Your task to perform on an android device: Add duracell triple a to the cart on walmart Image 0: 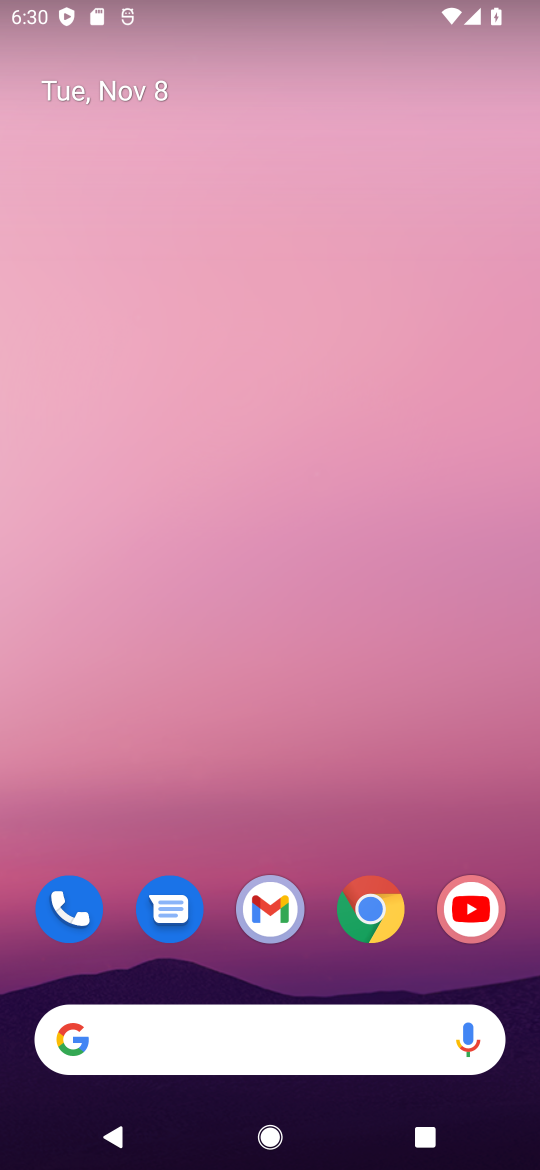
Step 0: click (385, 903)
Your task to perform on an android device: Add duracell triple a to the cart on walmart Image 1: 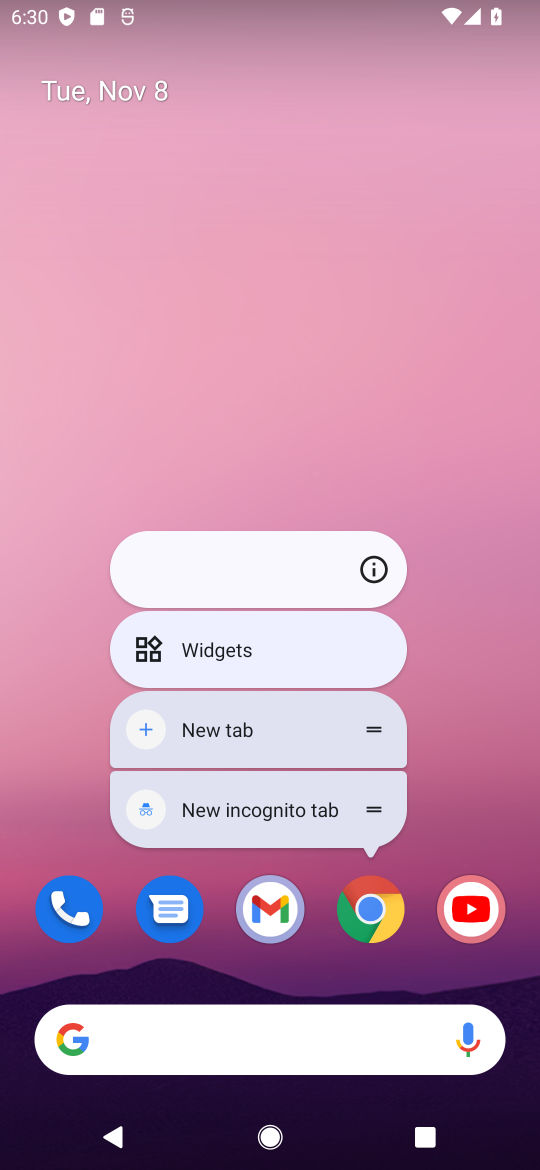
Step 1: click (365, 909)
Your task to perform on an android device: Add duracell triple a to the cart on walmart Image 2: 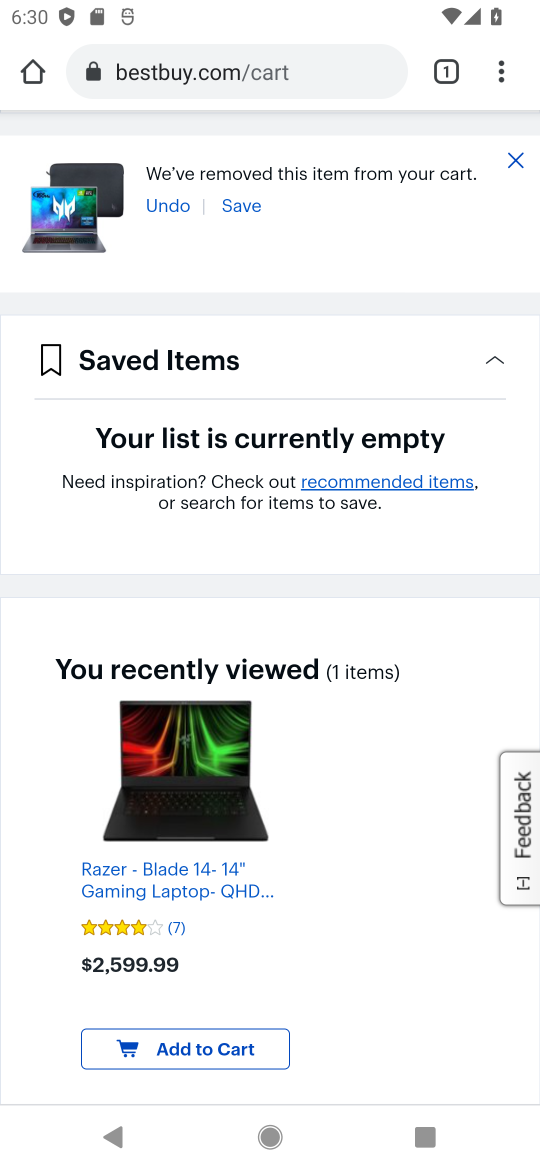
Step 2: click (257, 63)
Your task to perform on an android device: Add duracell triple a to the cart on walmart Image 3: 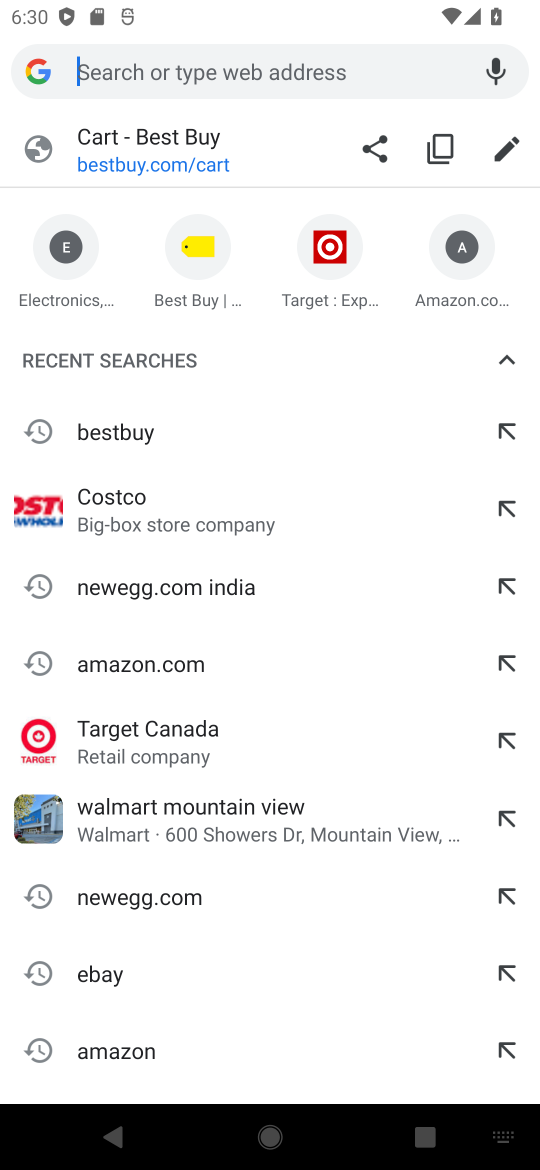
Step 3: drag from (408, 302) to (1, 647)
Your task to perform on an android device: Add duracell triple a to the cart on walmart Image 4: 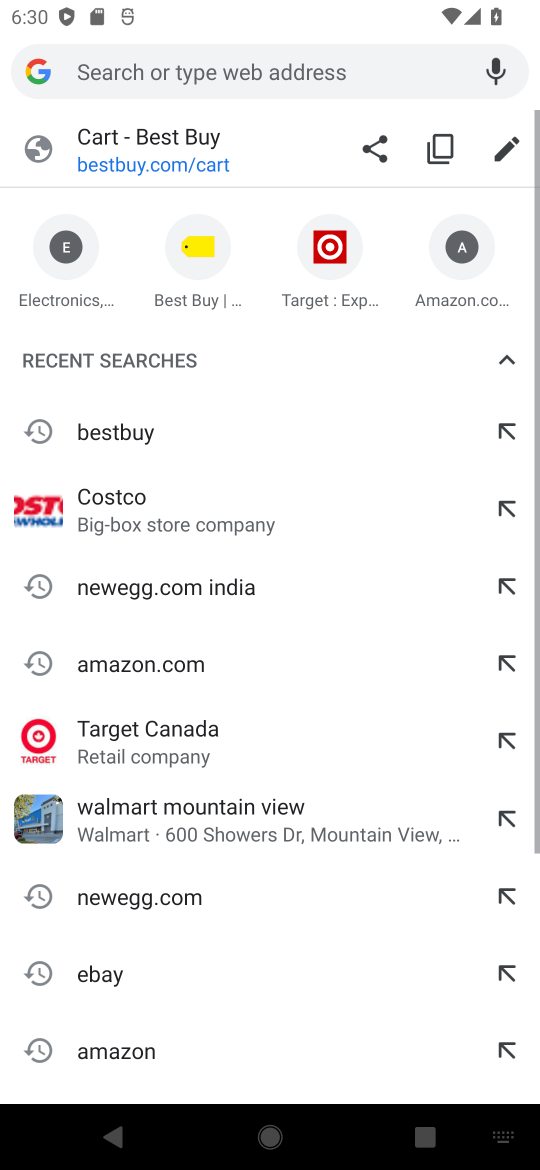
Step 4: drag from (403, 258) to (65, 258)
Your task to perform on an android device: Add duracell triple a to the cart on walmart Image 5: 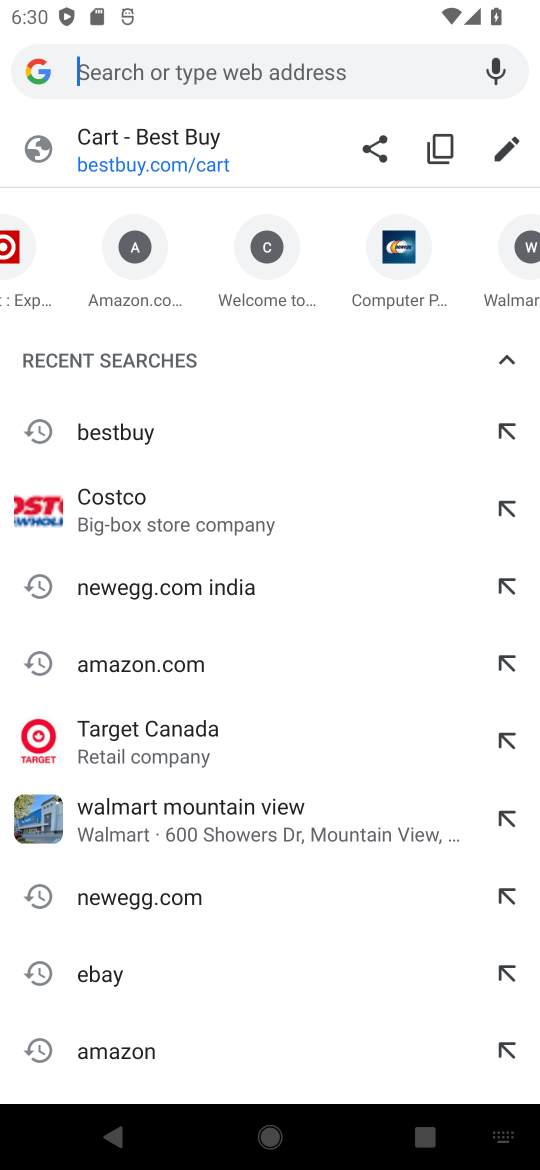
Step 5: drag from (450, 263) to (151, 274)
Your task to perform on an android device: Add duracell triple a to the cart on walmart Image 6: 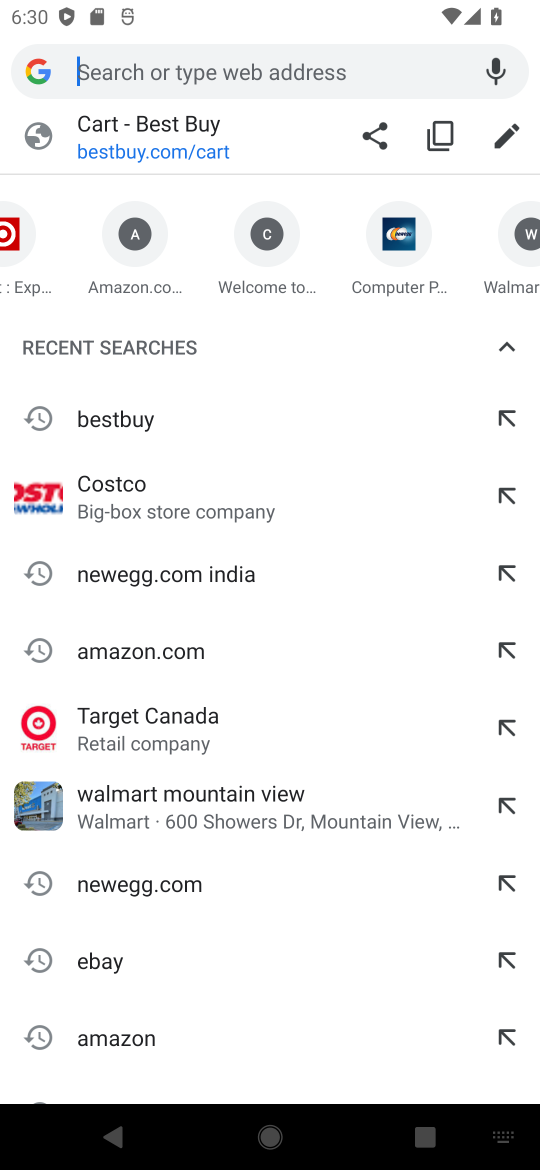
Step 6: click (512, 282)
Your task to perform on an android device: Add duracell triple a to the cart on walmart Image 7: 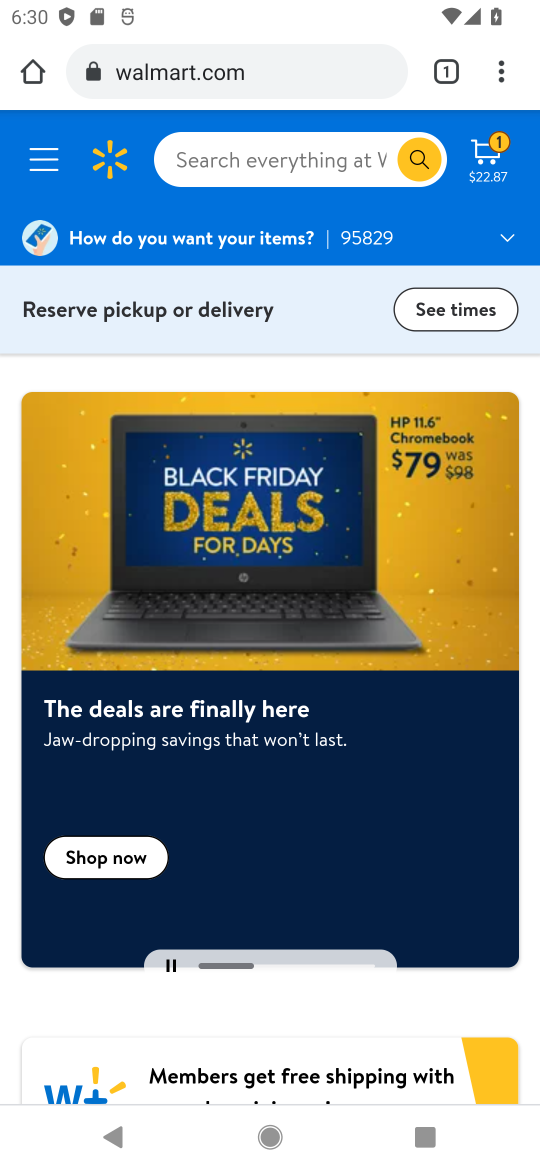
Step 7: click (336, 148)
Your task to perform on an android device: Add duracell triple a to the cart on walmart Image 8: 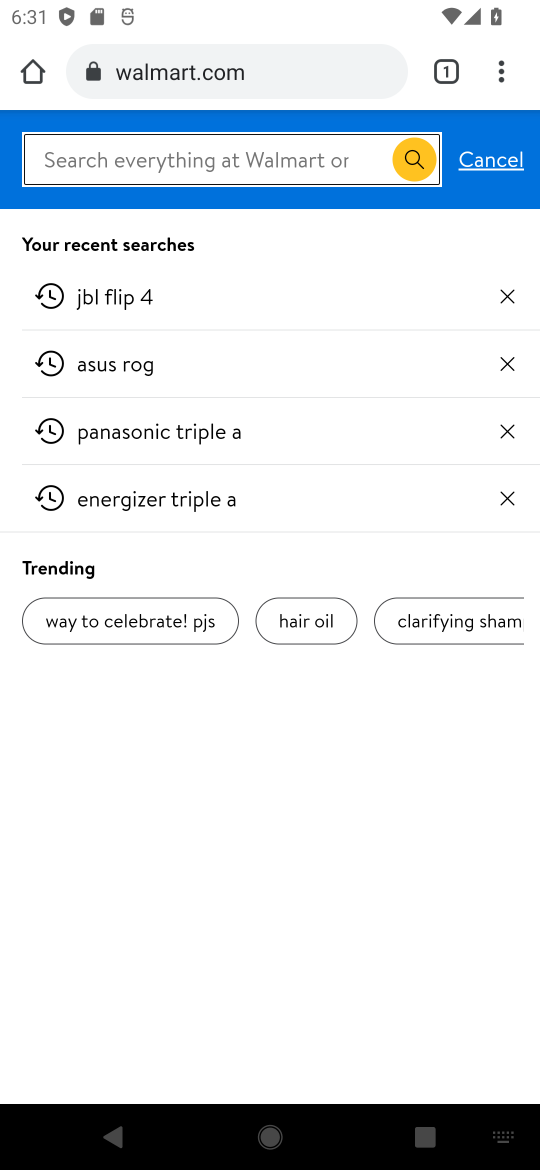
Step 8: type "duracell triple a"
Your task to perform on an android device: Add duracell triple a to the cart on walmart Image 9: 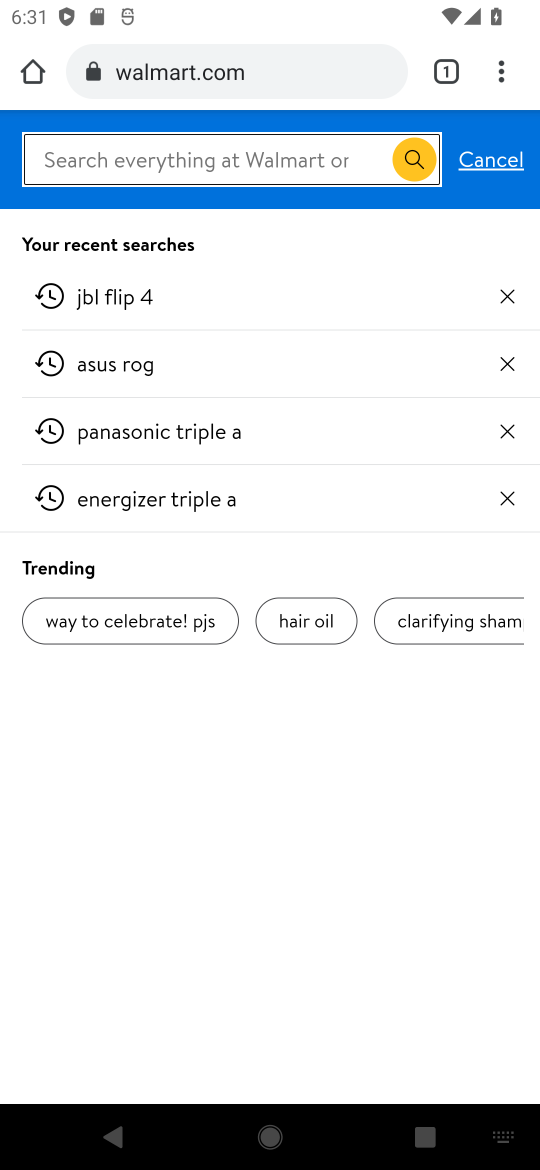
Step 9: press enter
Your task to perform on an android device: Add duracell triple a to the cart on walmart Image 10: 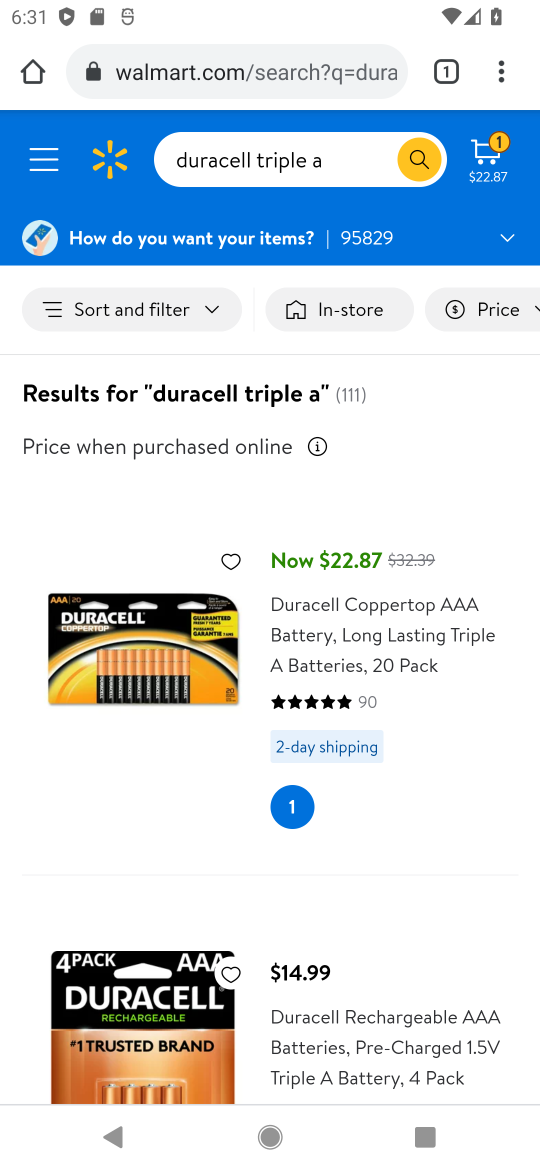
Step 10: click (389, 629)
Your task to perform on an android device: Add duracell triple a to the cart on walmart Image 11: 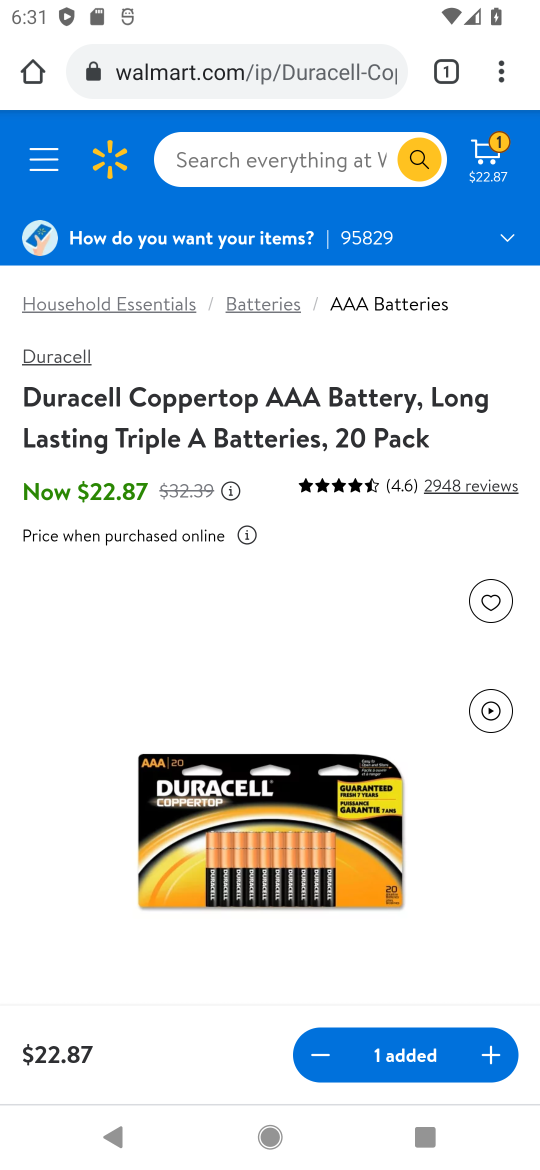
Step 11: click (496, 136)
Your task to perform on an android device: Add duracell triple a to the cart on walmart Image 12: 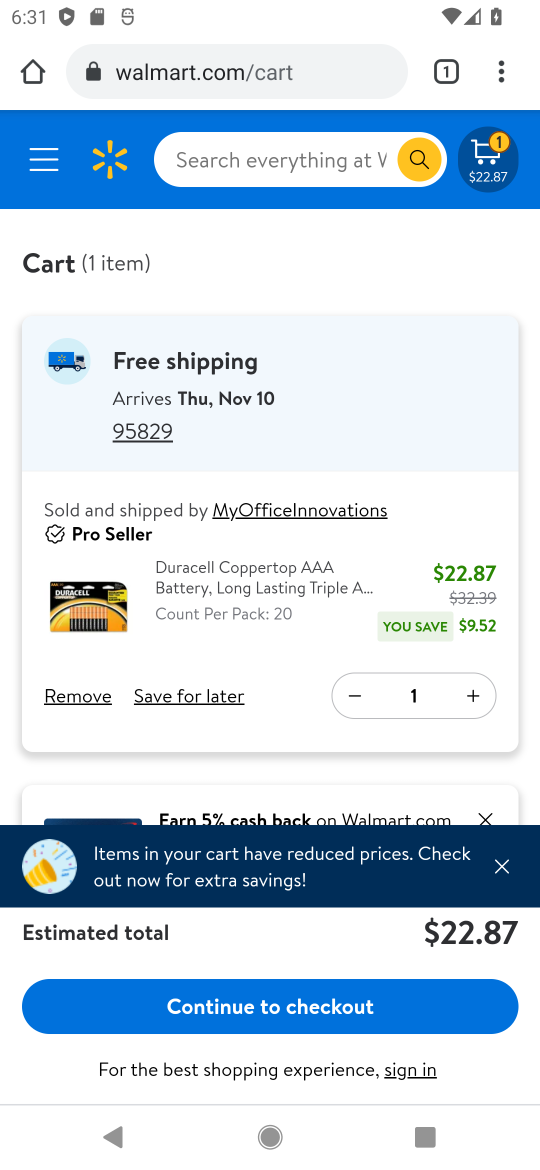
Step 12: task complete